Your task to perform on an android device: Open accessibility settings Image 0: 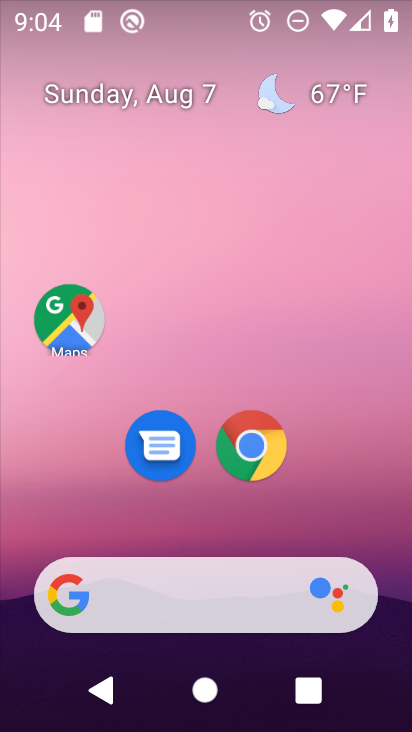
Step 0: press home button
Your task to perform on an android device: Open accessibility settings Image 1: 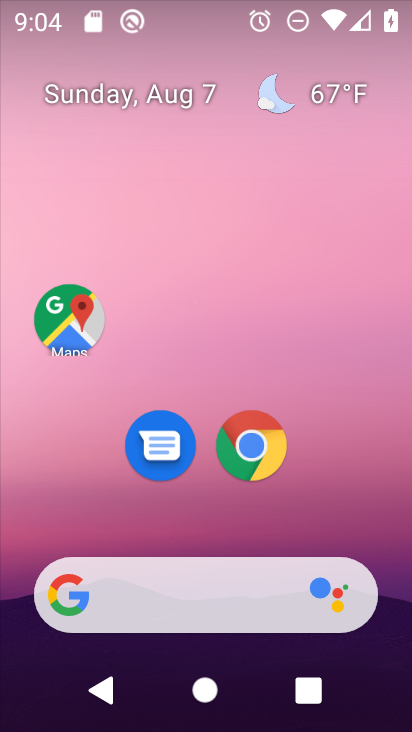
Step 1: drag from (231, 529) to (232, 0)
Your task to perform on an android device: Open accessibility settings Image 2: 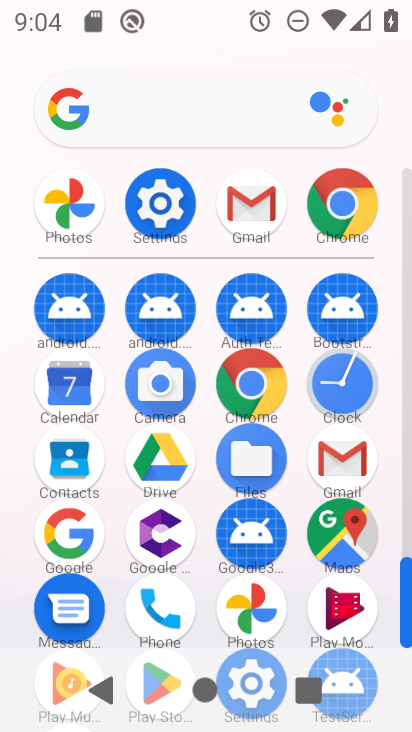
Step 2: click (156, 198)
Your task to perform on an android device: Open accessibility settings Image 3: 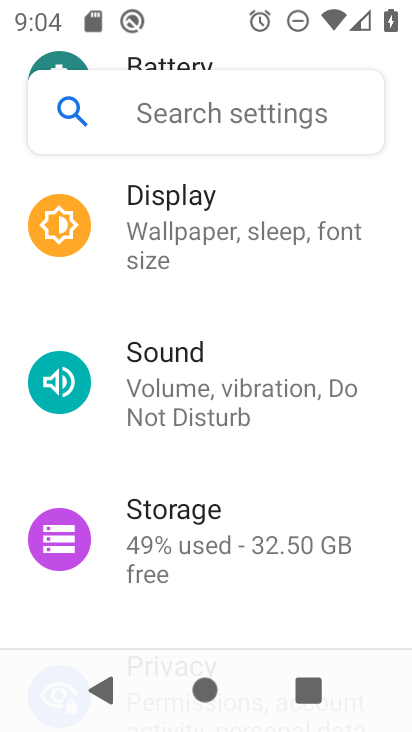
Step 3: drag from (226, 559) to (245, 14)
Your task to perform on an android device: Open accessibility settings Image 4: 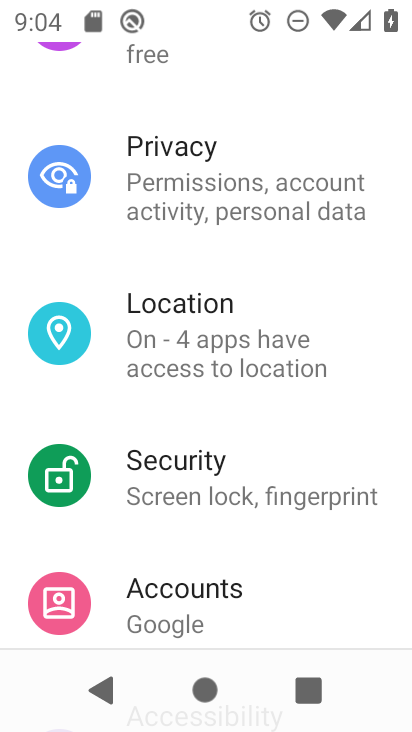
Step 4: drag from (220, 584) to (232, 54)
Your task to perform on an android device: Open accessibility settings Image 5: 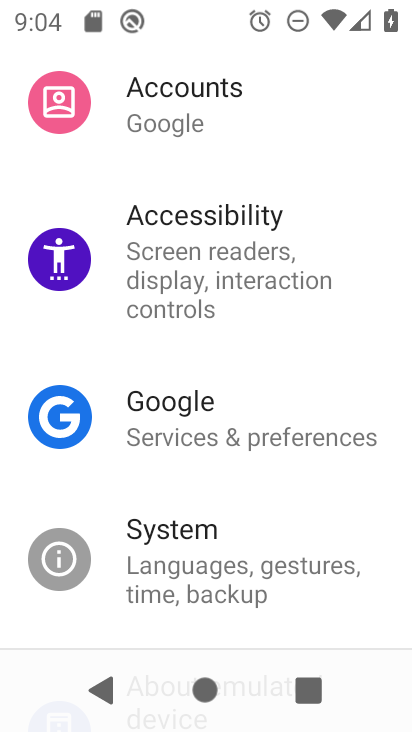
Step 5: click (214, 246)
Your task to perform on an android device: Open accessibility settings Image 6: 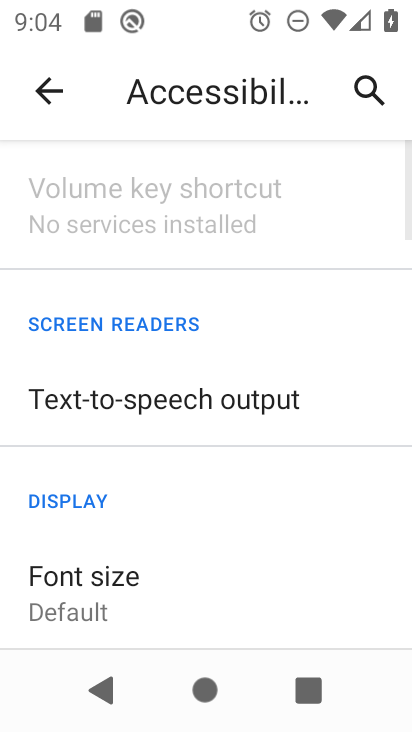
Step 6: task complete